Your task to perform on an android device: open a new tab in the chrome app Image 0: 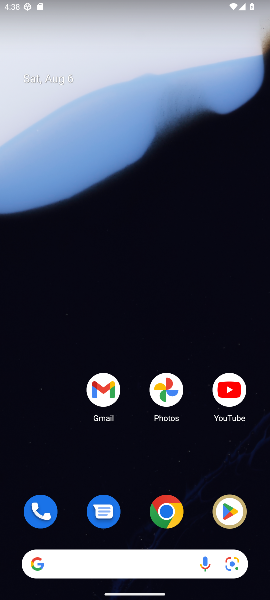
Step 0: click (159, 508)
Your task to perform on an android device: open a new tab in the chrome app Image 1: 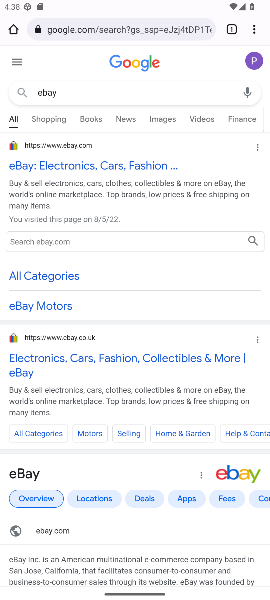
Step 1: click (253, 29)
Your task to perform on an android device: open a new tab in the chrome app Image 2: 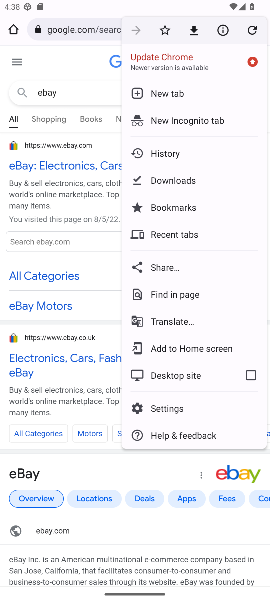
Step 2: click (171, 89)
Your task to perform on an android device: open a new tab in the chrome app Image 3: 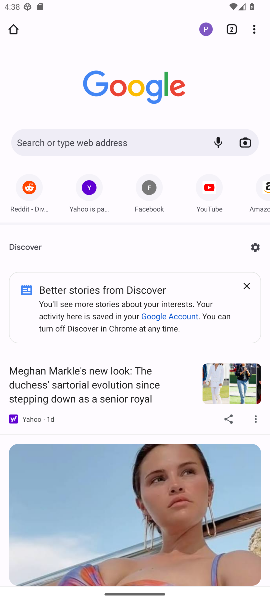
Step 3: task complete